Your task to perform on an android device: Open Google Chrome and click the shortcut for Amazon.com Image 0: 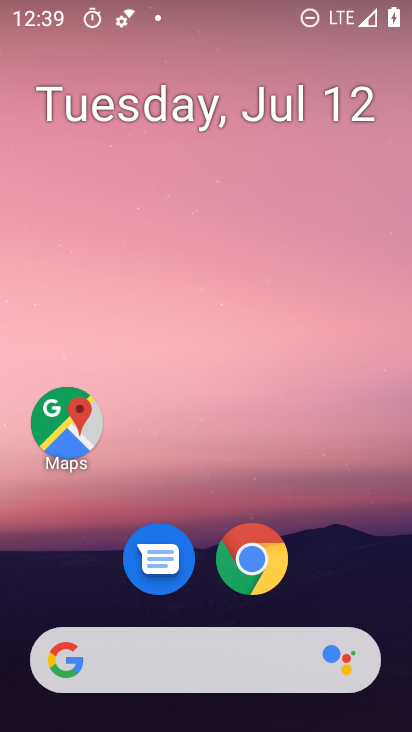
Step 0: drag from (190, 586) to (176, 12)
Your task to perform on an android device: Open Google Chrome and click the shortcut for Amazon.com Image 1: 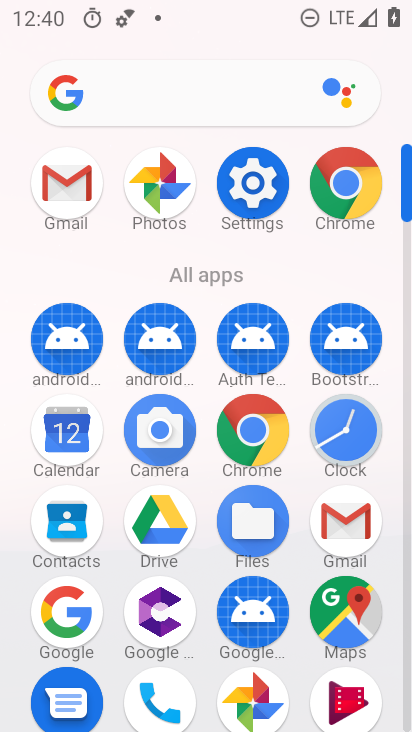
Step 1: click (356, 192)
Your task to perform on an android device: Open Google Chrome and click the shortcut for Amazon.com Image 2: 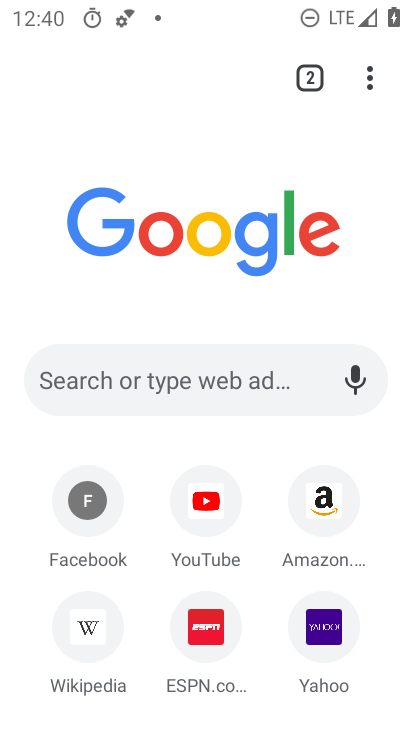
Step 2: click (308, 509)
Your task to perform on an android device: Open Google Chrome and click the shortcut for Amazon.com Image 3: 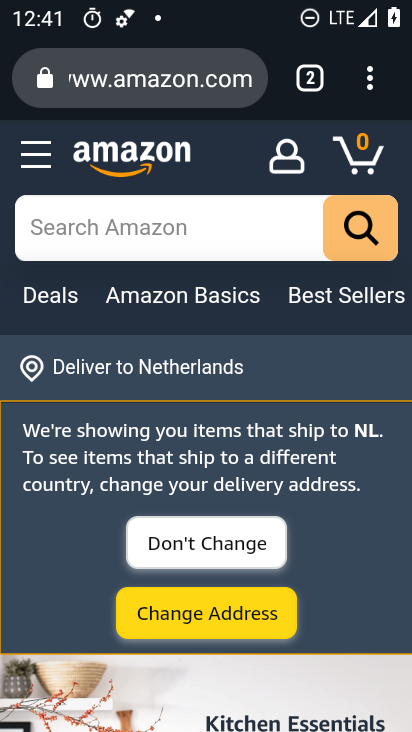
Step 3: task complete